Your task to perform on an android device: turn off notifications settings in the gmail app Image 0: 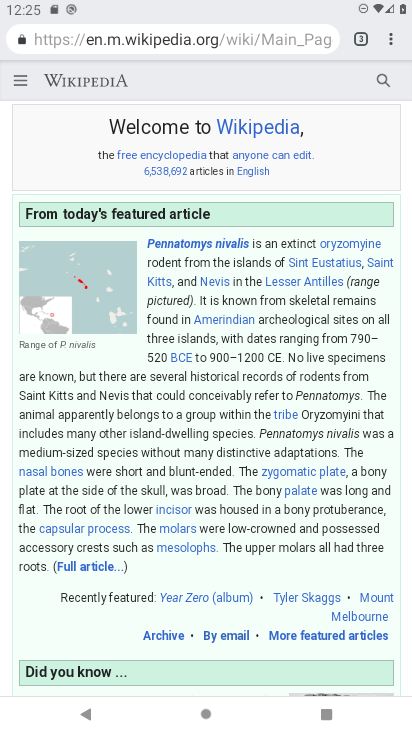
Step 0: press home button
Your task to perform on an android device: turn off notifications settings in the gmail app Image 1: 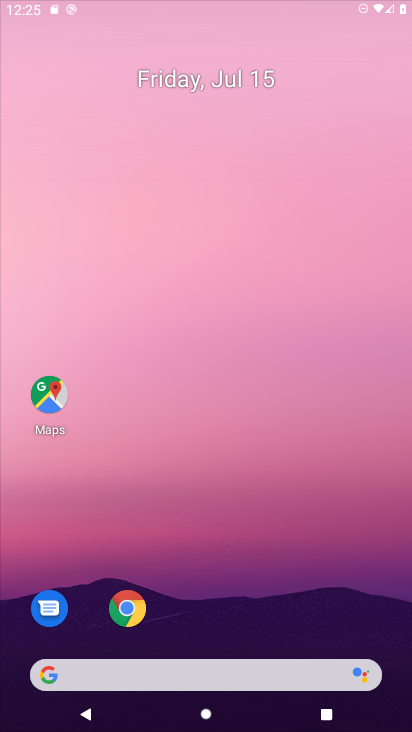
Step 1: drag from (306, 391) to (382, 0)
Your task to perform on an android device: turn off notifications settings in the gmail app Image 2: 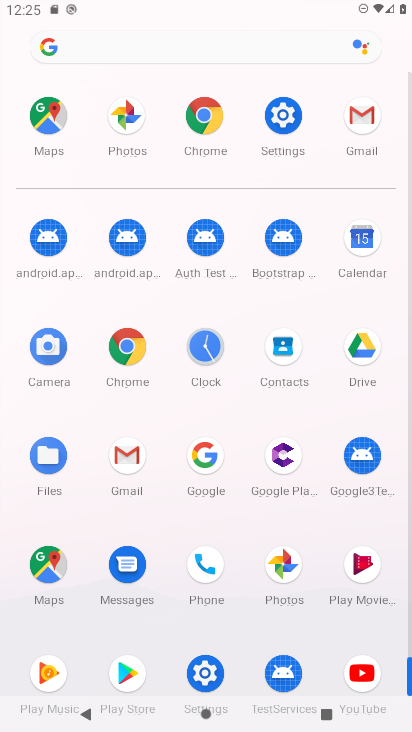
Step 2: click (125, 449)
Your task to perform on an android device: turn off notifications settings in the gmail app Image 3: 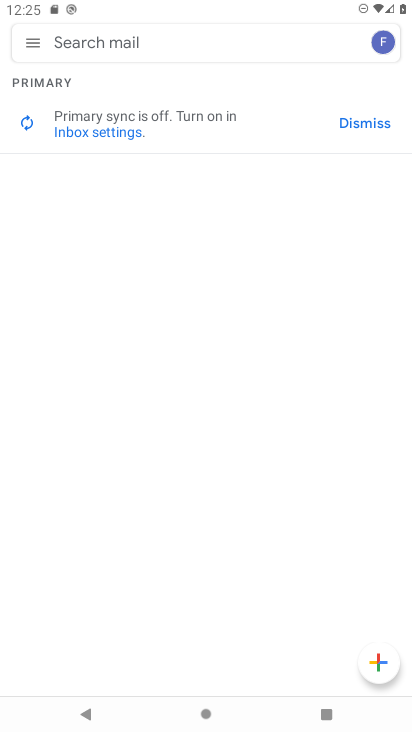
Step 3: click (27, 35)
Your task to perform on an android device: turn off notifications settings in the gmail app Image 4: 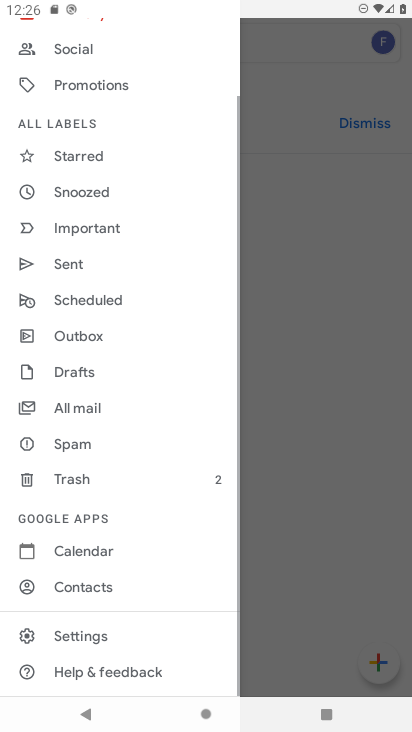
Step 4: click (126, 631)
Your task to perform on an android device: turn off notifications settings in the gmail app Image 5: 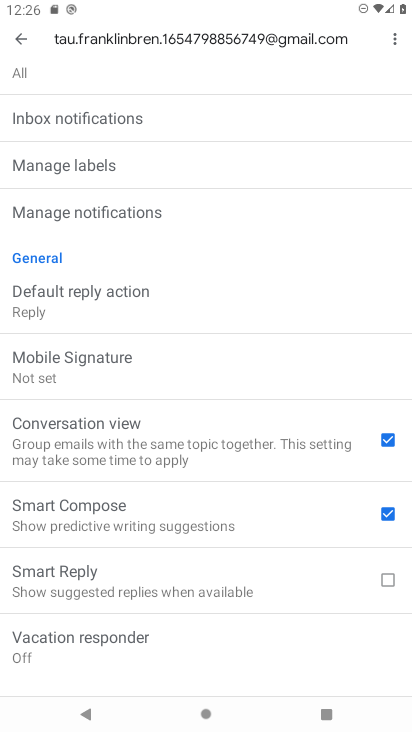
Step 5: click (137, 202)
Your task to perform on an android device: turn off notifications settings in the gmail app Image 6: 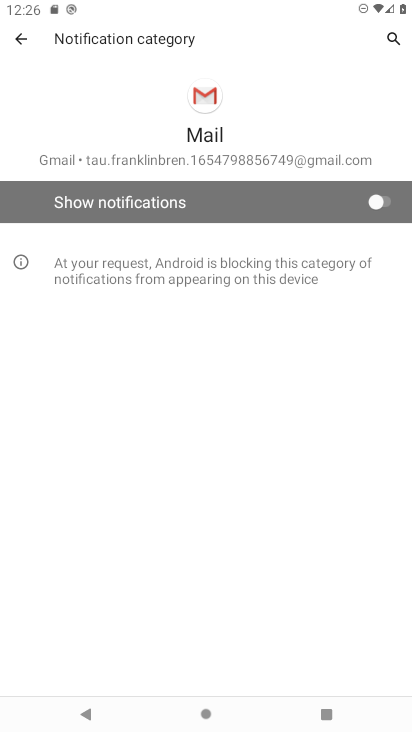
Step 6: click (387, 198)
Your task to perform on an android device: turn off notifications settings in the gmail app Image 7: 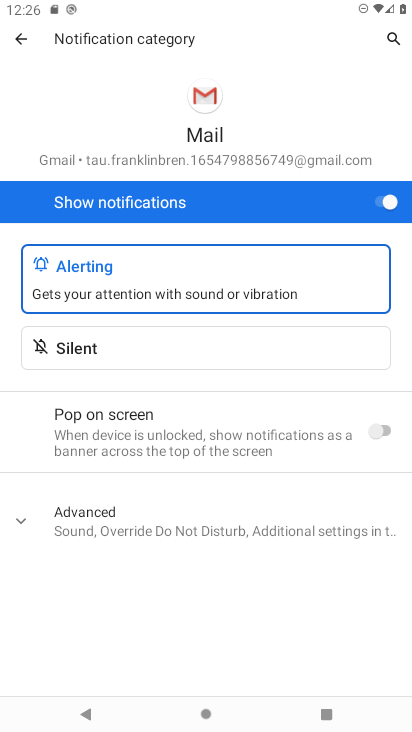
Step 7: click (387, 198)
Your task to perform on an android device: turn off notifications settings in the gmail app Image 8: 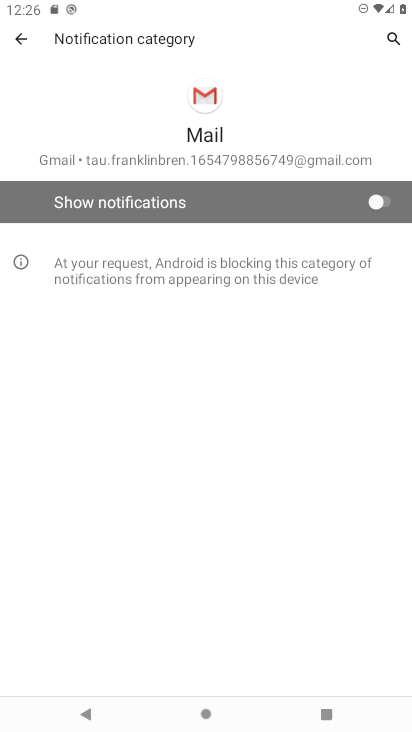
Step 8: task complete